Your task to perform on an android device: Open calendar and show me the second week of next month Image 0: 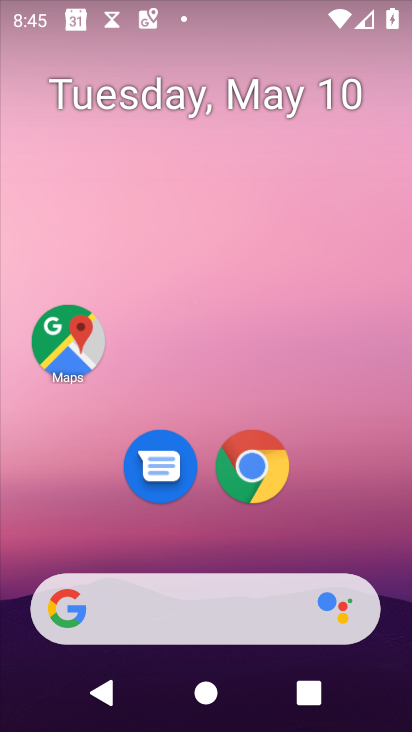
Step 0: drag from (319, 532) to (345, 56)
Your task to perform on an android device: Open calendar and show me the second week of next month Image 1: 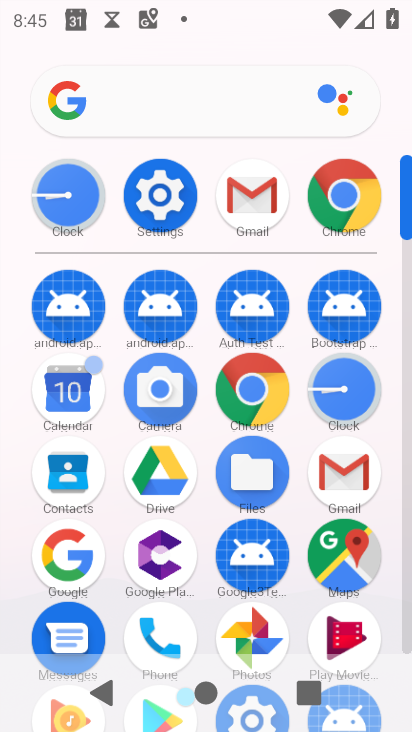
Step 1: click (65, 408)
Your task to perform on an android device: Open calendar and show me the second week of next month Image 2: 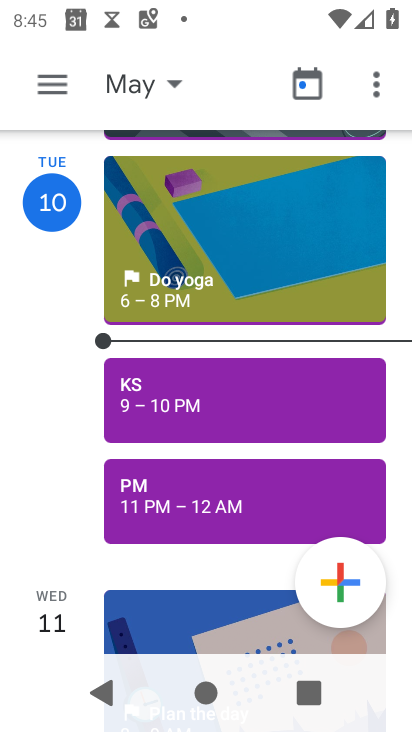
Step 2: click (189, 93)
Your task to perform on an android device: Open calendar and show me the second week of next month Image 3: 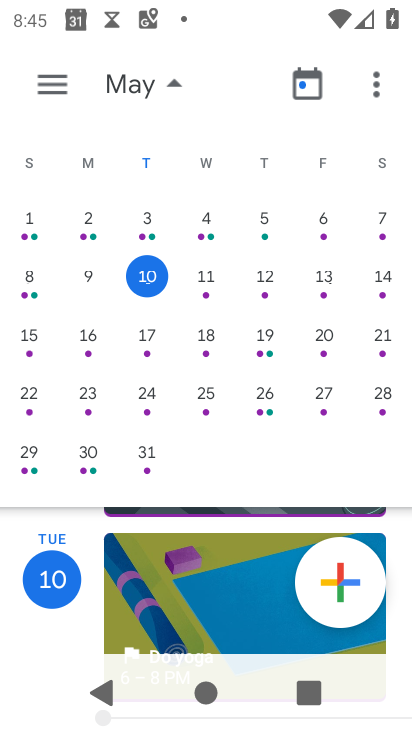
Step 3: drag from (375, 244) to (2, 302)
Your task to perform on an android device: Open calendar and show me the second week of next month Image 4: 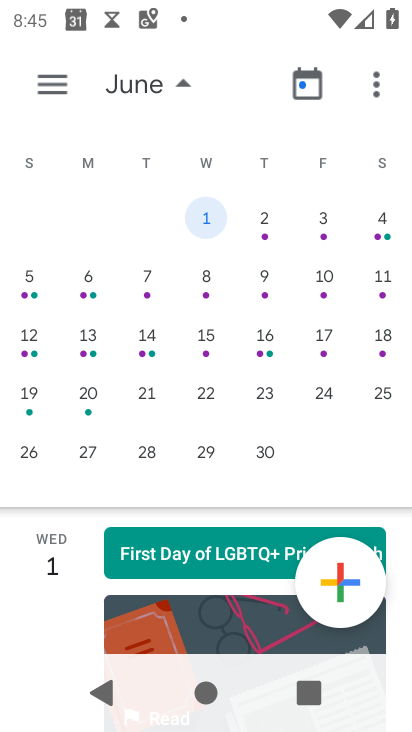
Step 4: click (37, 283)
Your task to perform on an android device: Open calendar and show me the second week of next month Image 5: 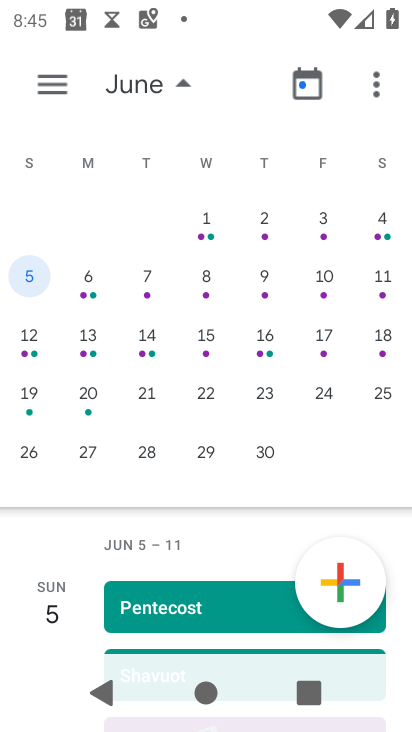
Step 5: task complete